Your task to perform on an android device: Turn off the flashlight Image 0: 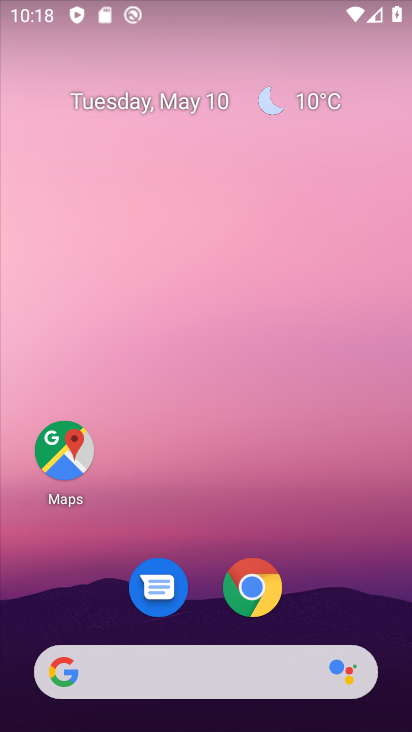
Step 0: drag from (204, 647) to (244, 730)
Your task to perform on an android device: Turn off the flashlight Image 1: 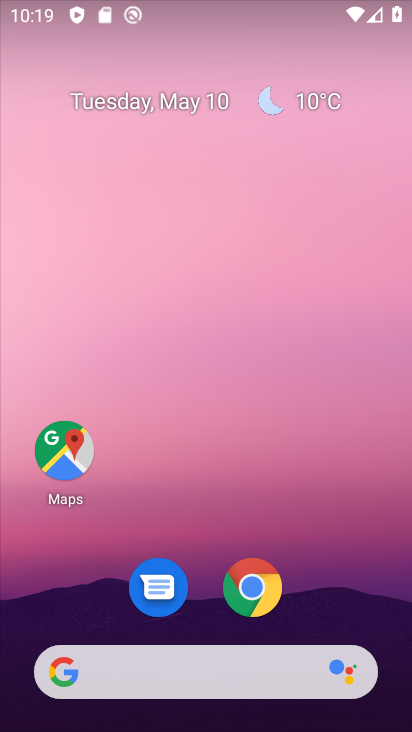
Step 1: drag from (227, 621) to (251, 0)
Your task to perform on an android device: Turn off the flashlight Image 2: 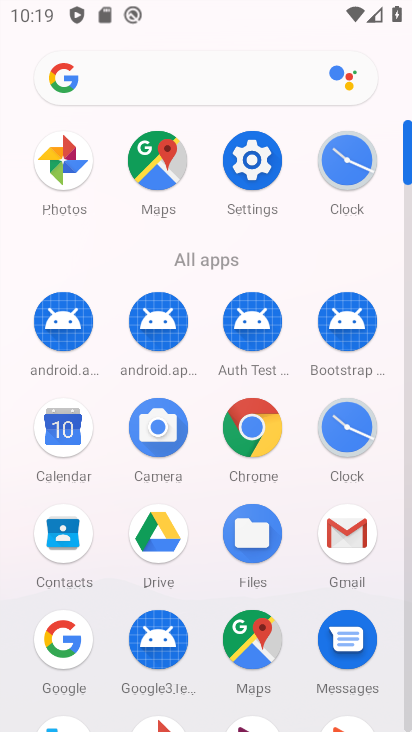
Step 2: click (242, 162)
Your task to perform on an android device: Turn off the flashlight Image 3: 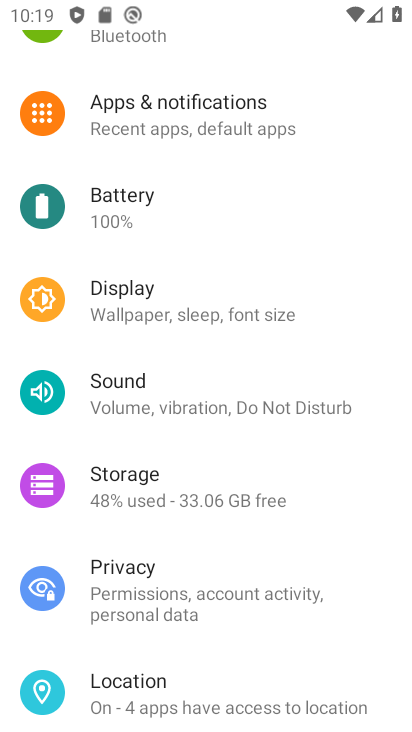
Step 3: drag from (237, 493) to (143, 697)
Your task to perform on an android device: Turn off the flashlight Image 4: 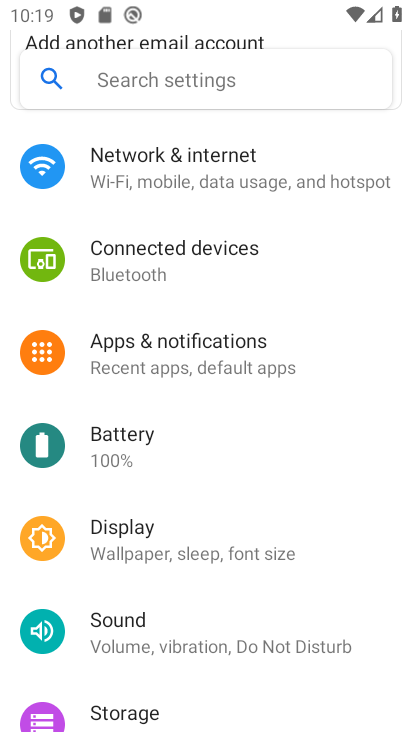
Step 4: click (196, 91)
Your task to perform on an android device: Turn off the flashlight Image 5: 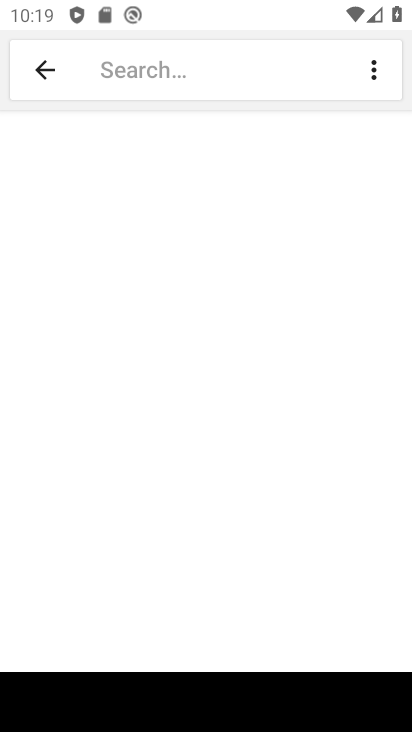
Step 5: type "flashlight"
Your task to perform on an android device: Turn off the flashlight Image 6: 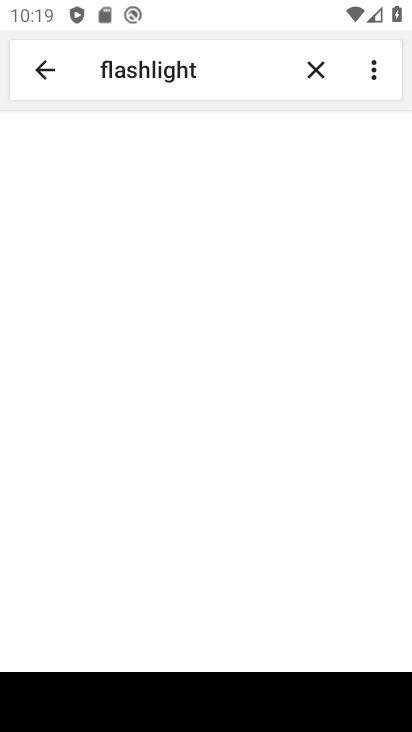
Step 6: task complete